Your task to perform on an android device: change your default location settings in chrome Image 0: 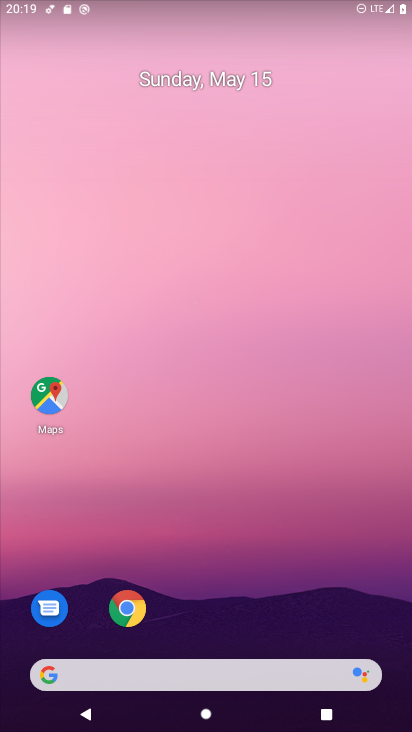
Step 0: click (130, 609)
Your task to perform on an android device: change your default location settings in chrome Image 1: 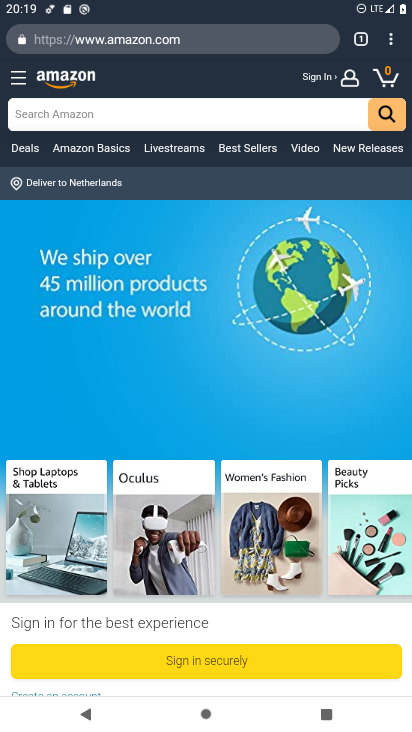
Step 1: click (385, 47)
Your task to perform on an android device: change your default location settings in chrome Image 2: 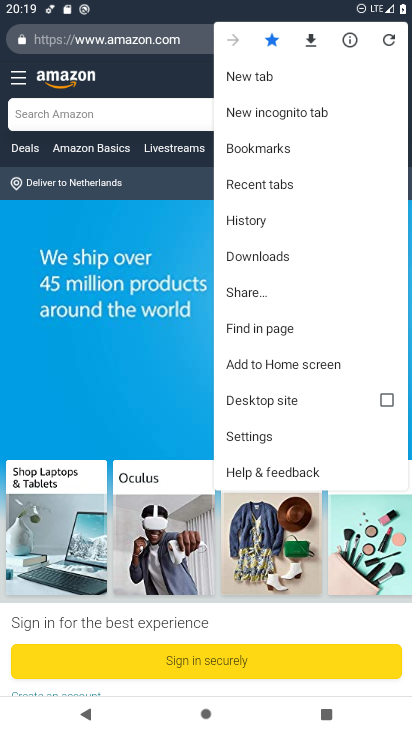
Step 2: click (261, 438)
Your task to perform on an android device: change your default location settings in chrome Image 3: 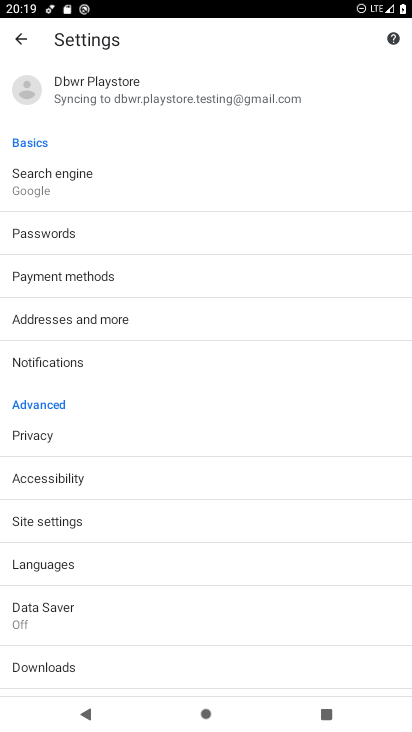
Step 3: click (93, 195)
Your task to perform on an android device: change your default location settings in chrome Image 4: 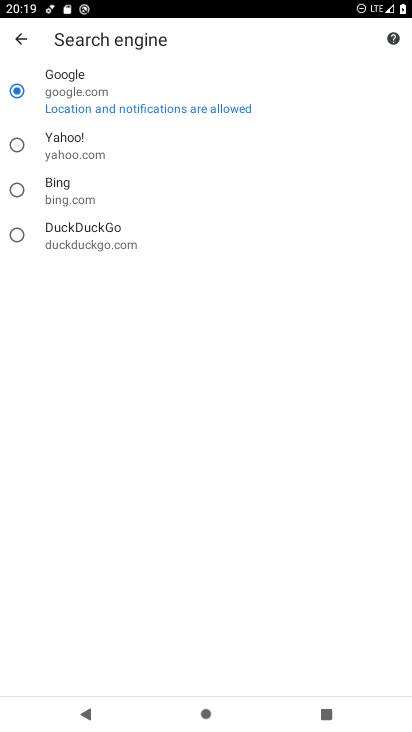
Step 4: click (22, 146)
Your task to perform on an android device: change your default location settings in chrome Image 5: 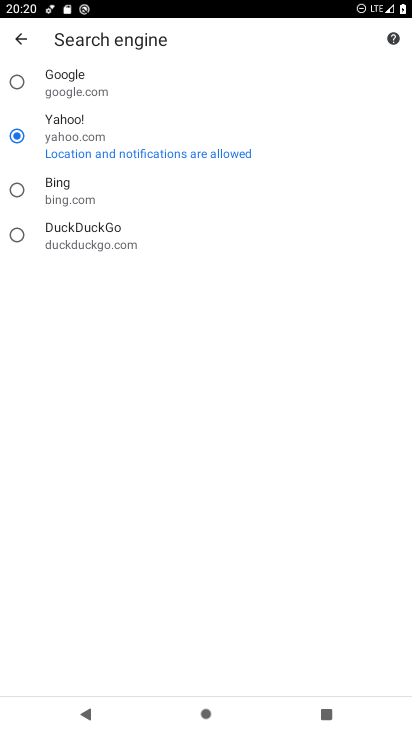
Step 5: task complete